Your task to perform on an android device: Open Google Image 0: 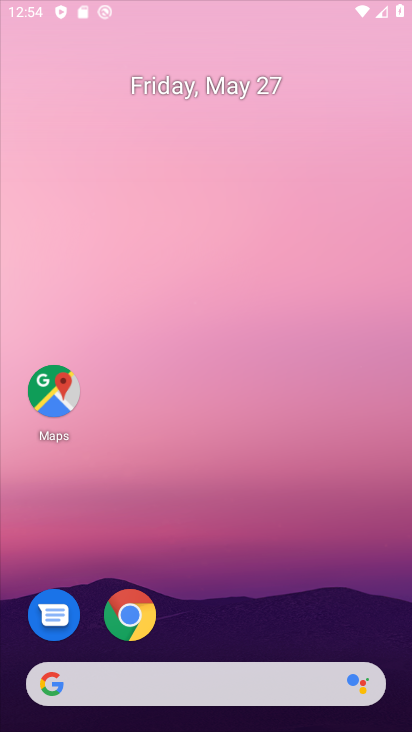
Step 0: press home button
Your task to perform on an android device: Open Google Image 1: 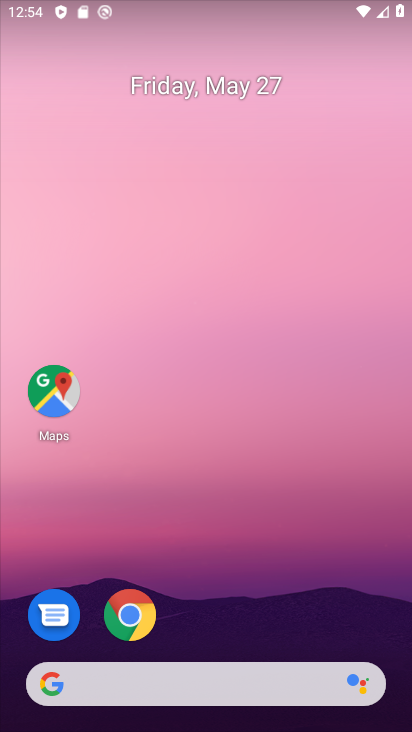
Step 1: click (48, 681)
Your task to perform on an android device: Open Google Image 2: 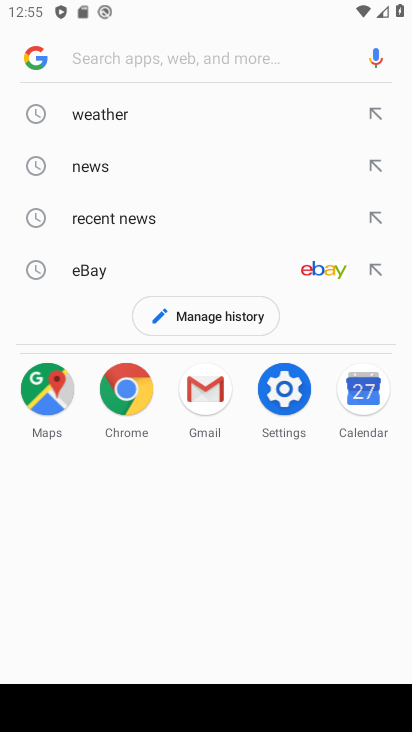
Step 2: task complete